Your task to perform on an android device: install app "DuckDuckGo Privacy Browser" Image 0: 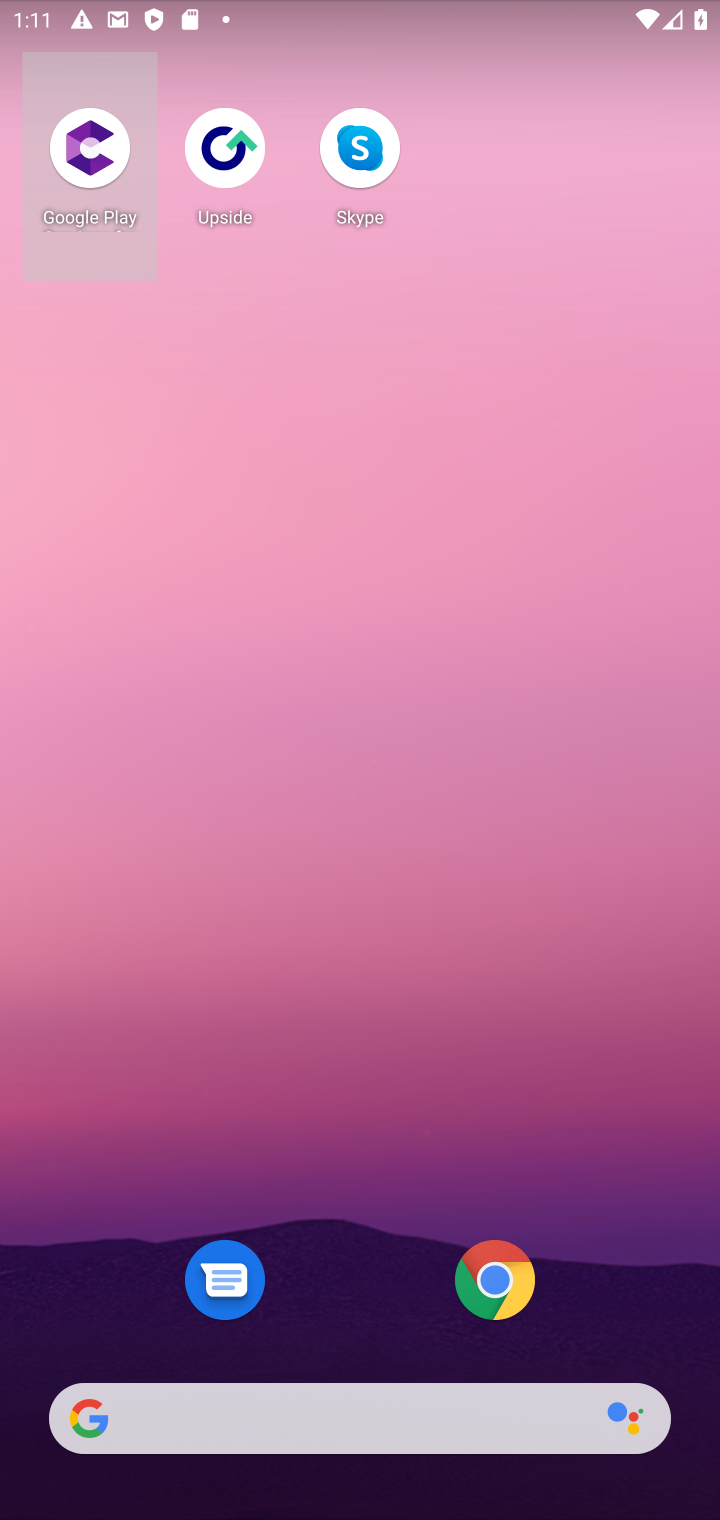
Step 0: drag from (410, 795) to (586, 16)
Your task to perform on an android device: install app "DuckDuckGo Privacy Browser" Image 1: 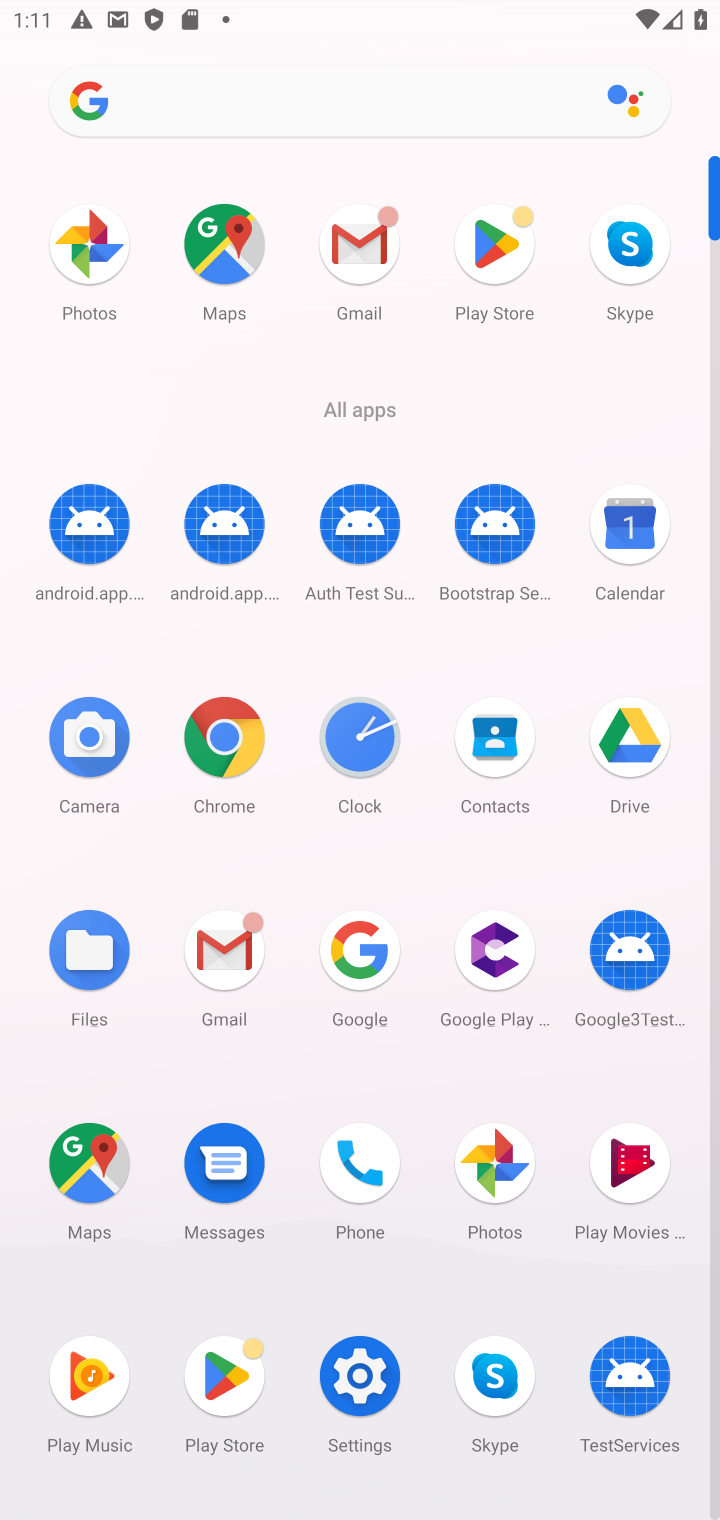
Step 1: click (509, 242)
Your task to perform on an android device: install app "DuckDuckGo Privacy Browser" Image 2: 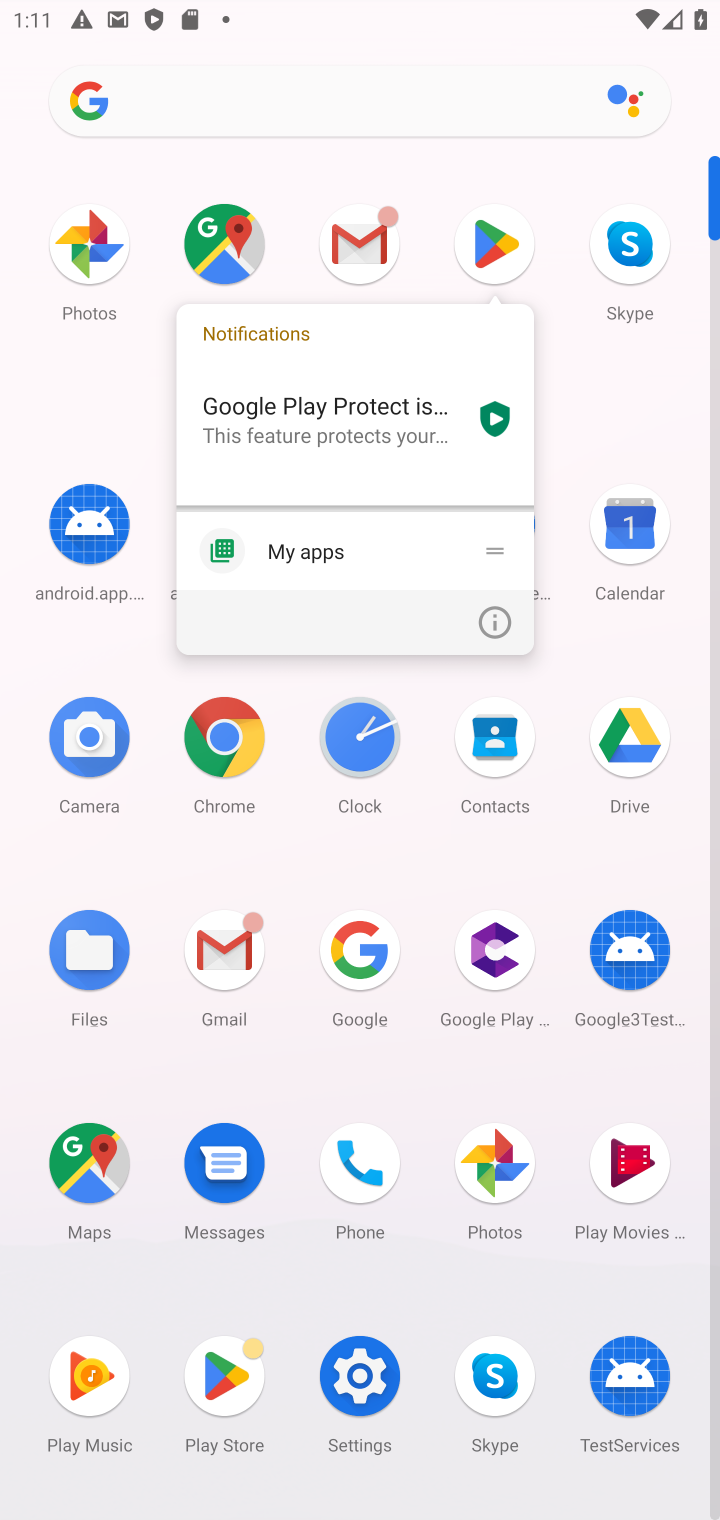
Step 2: click (483, 239)
Your task to perform on an android device: install app "DuckDuckGo Privacy Browser" Image 3: 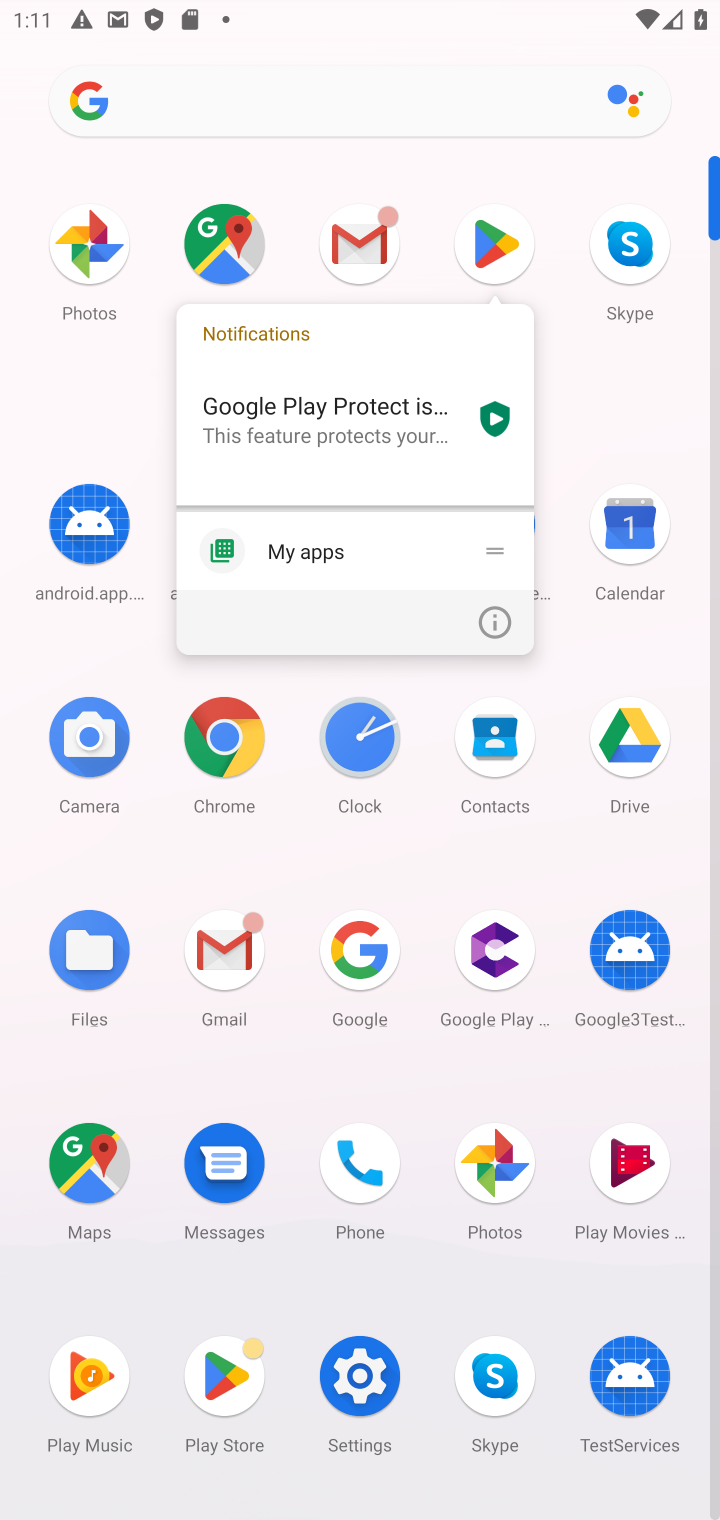
Step 3: click (504, 252)
Your task to perform on an android device: install app "DuckDuckGo Privacy Browser" Image 4: 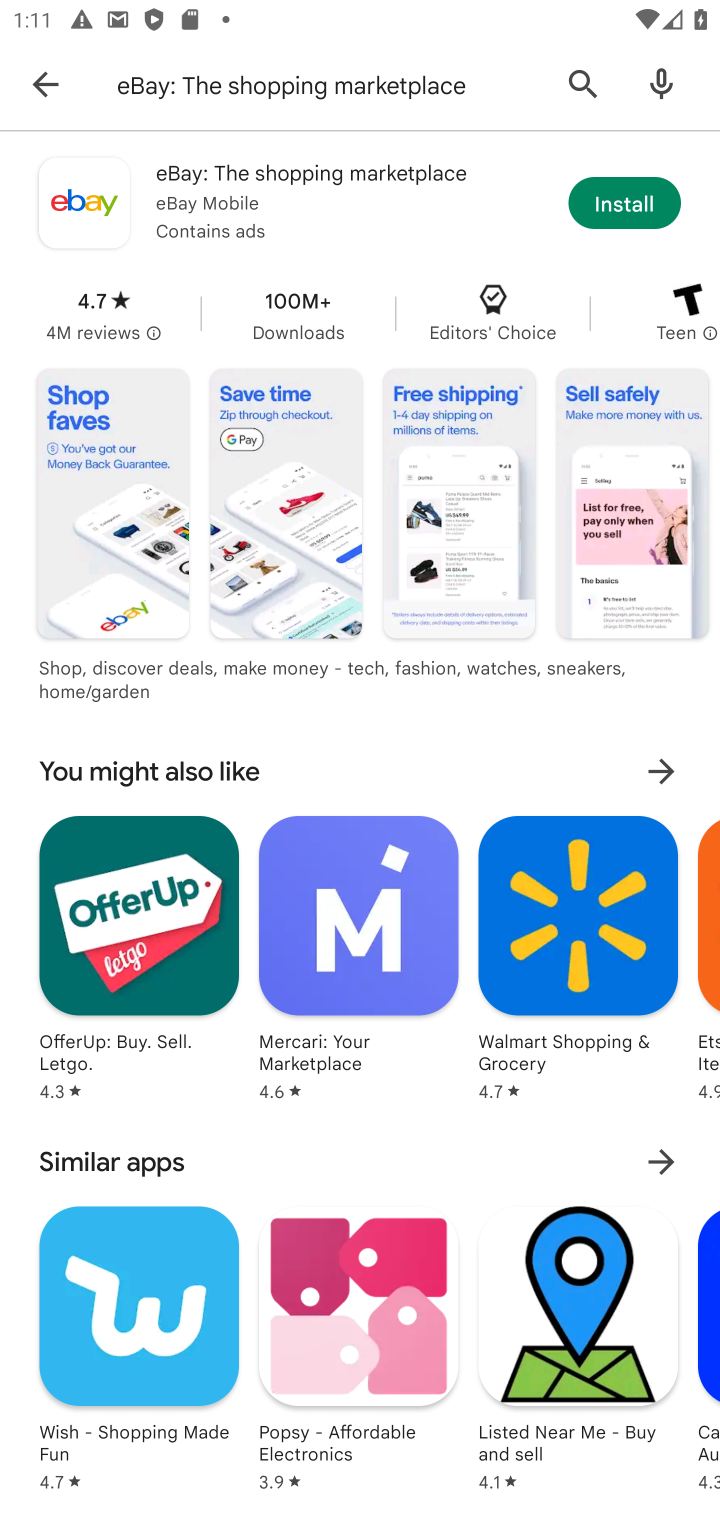
Step 4: click (442, 81)
Your task to perform on an android device: install app "DuckDuckGo Privacy Browser" Image 5: 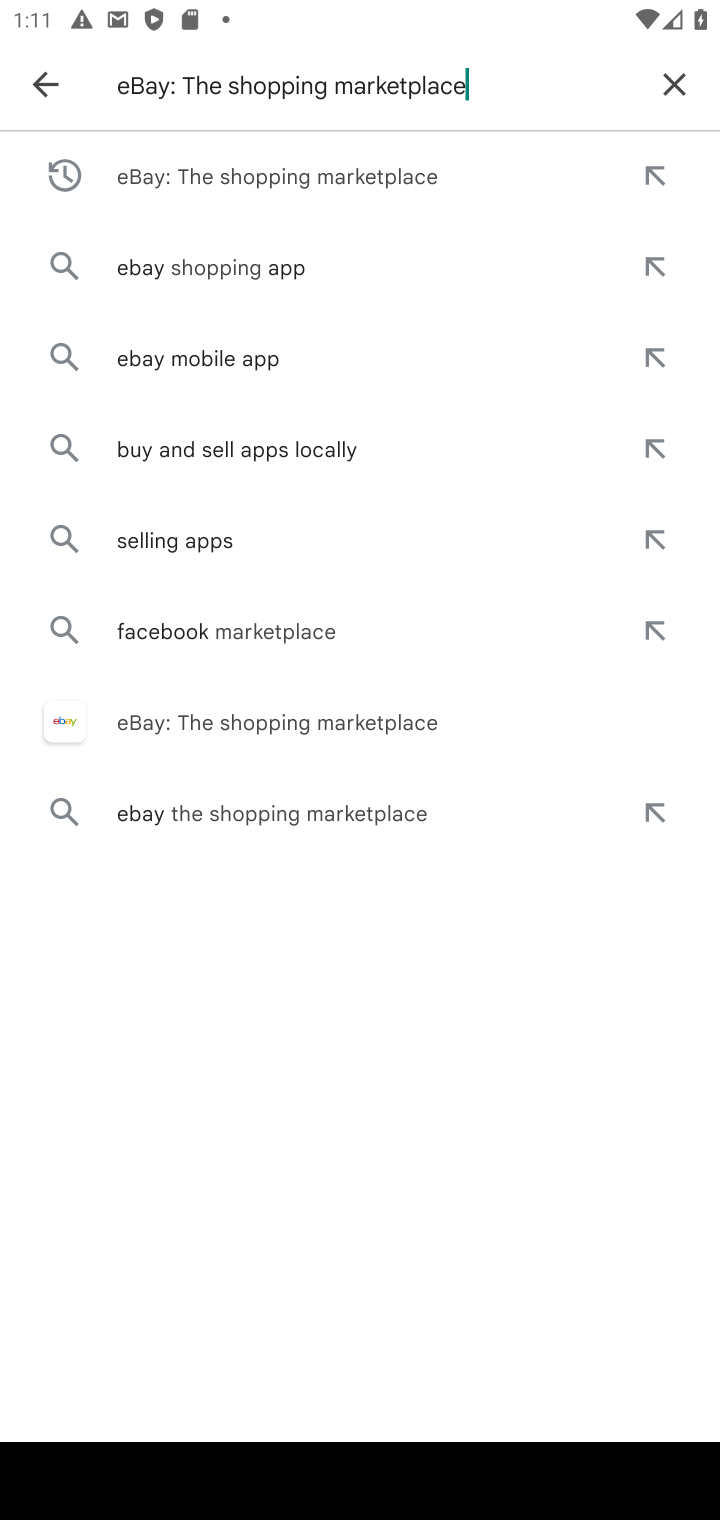
Step 5: click (676, 81)
Your task to perform on an android device: install app "DuckDuckGo Privacy Browser" Image 6: 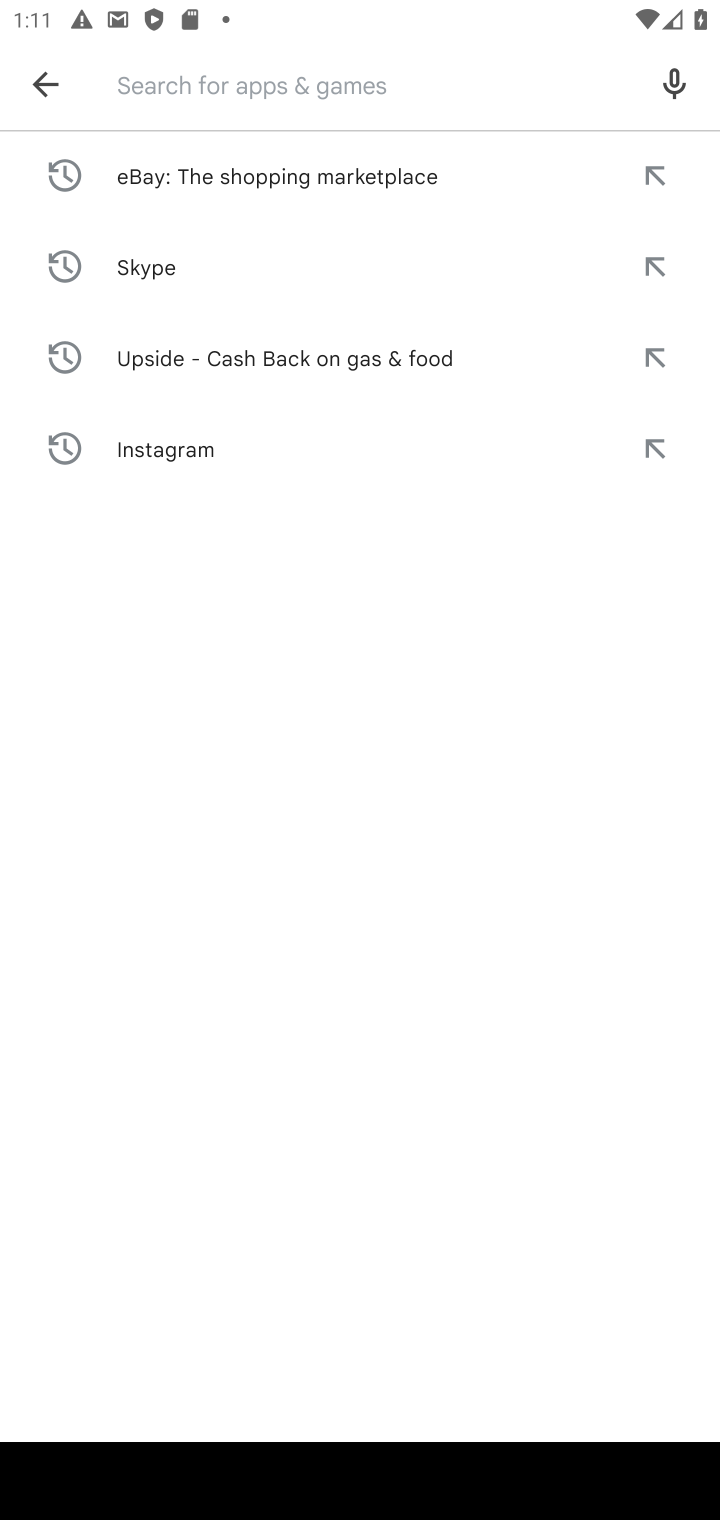
Step 6: type "DuckDuckGo Browser"
Your task to perform on an android device: install app "DuckDuckGo Privacy Browser" Image 7: 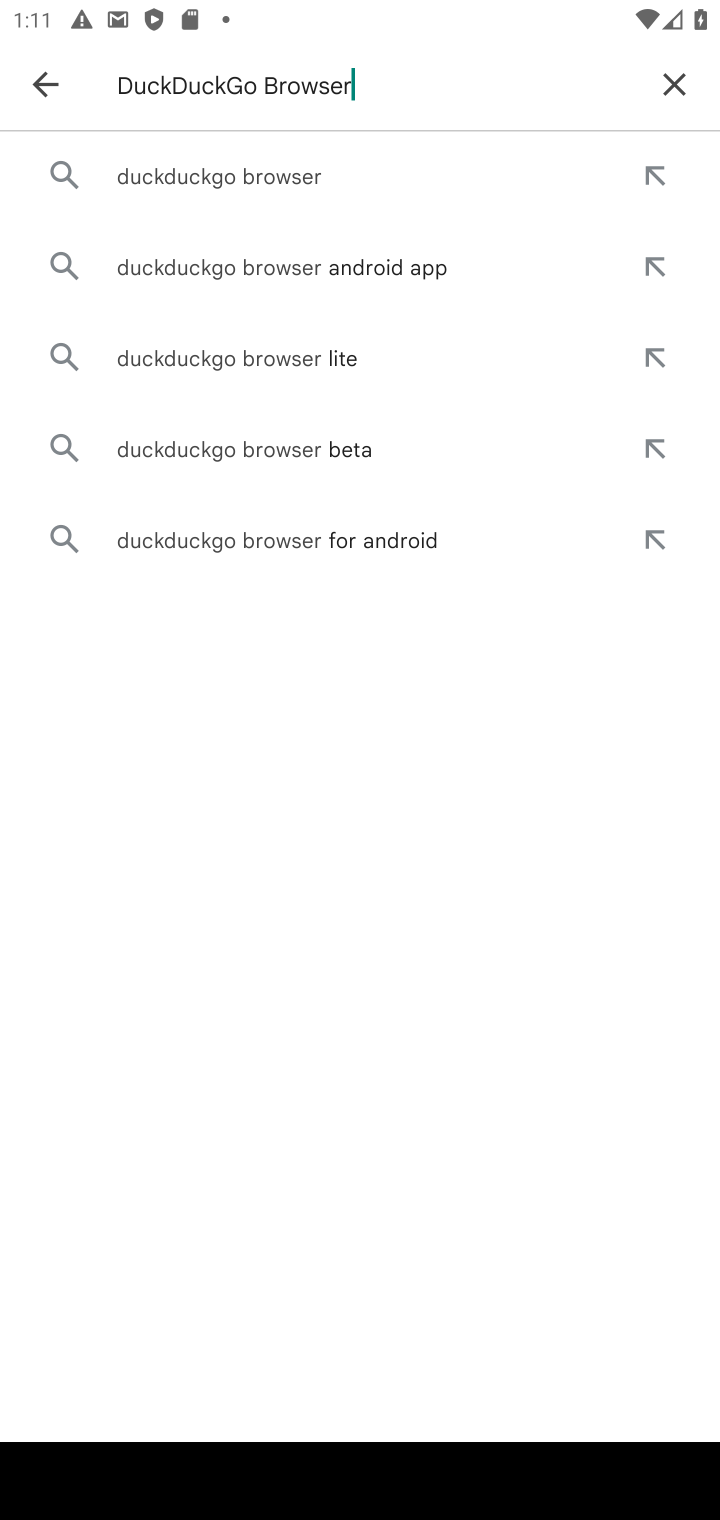
Step 7: press enter
Your task to perform on an android device: install app "DuckDuckGo Privacy Browser" Image 8: 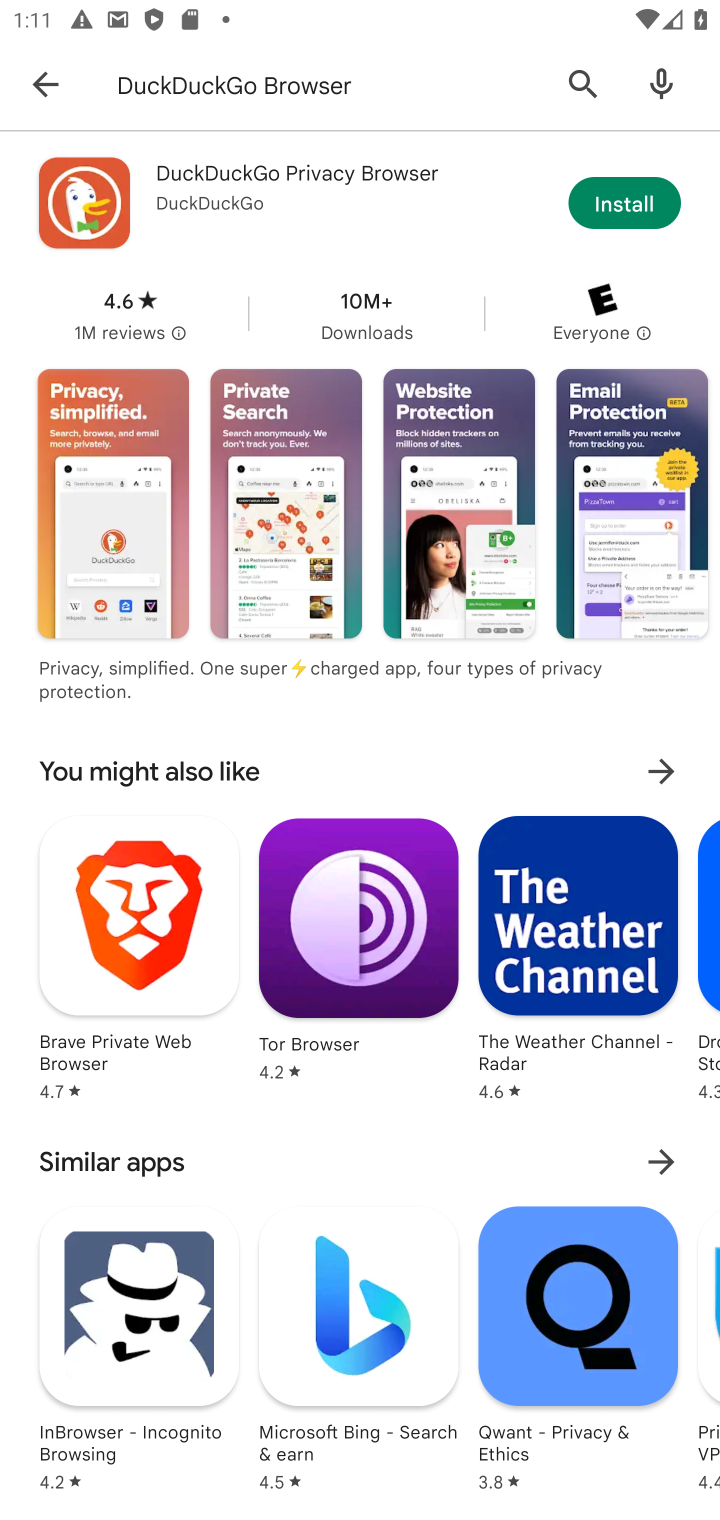
Step 8: click (604, 200)
Your task to perform on an android device: install app "DuckDuckGo Privacy Browser" Image 9: 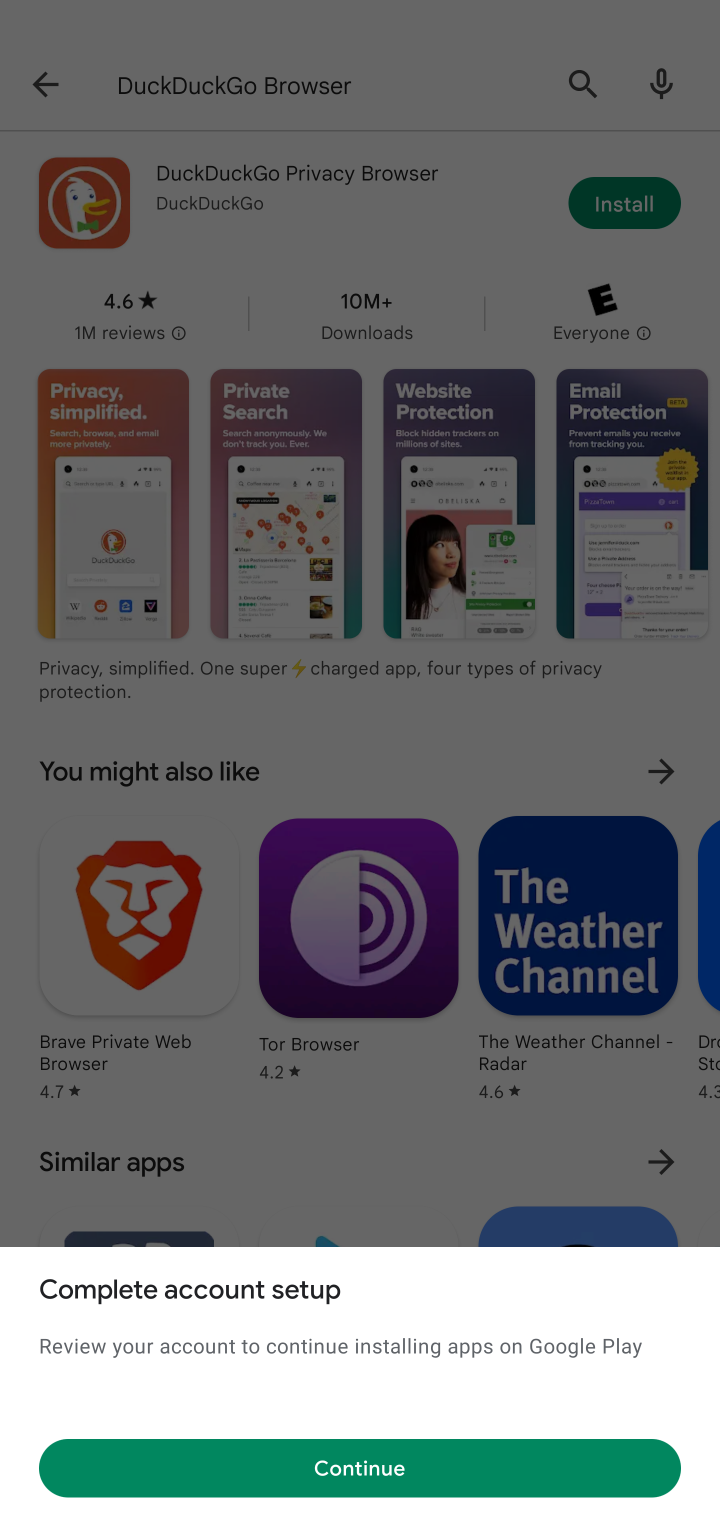
Step 9: click (478, 1467)
Your task to perform on an android device: install app "DuckDuckGo Privacy Browser" Image 10: 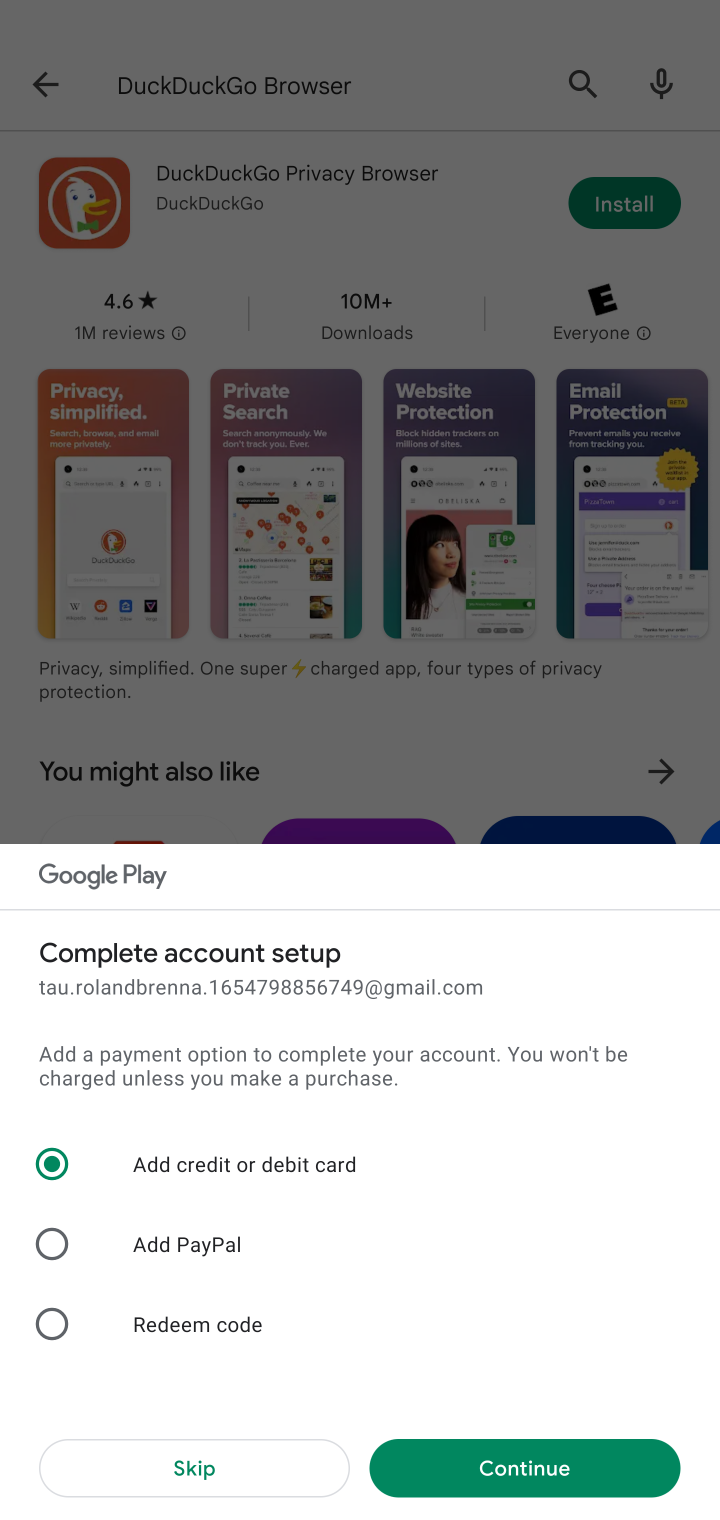
Step 10: click (204, 1456)
Your task to perform on an android device: install app "DuckDuckGo Privacy Browser" Image 11: 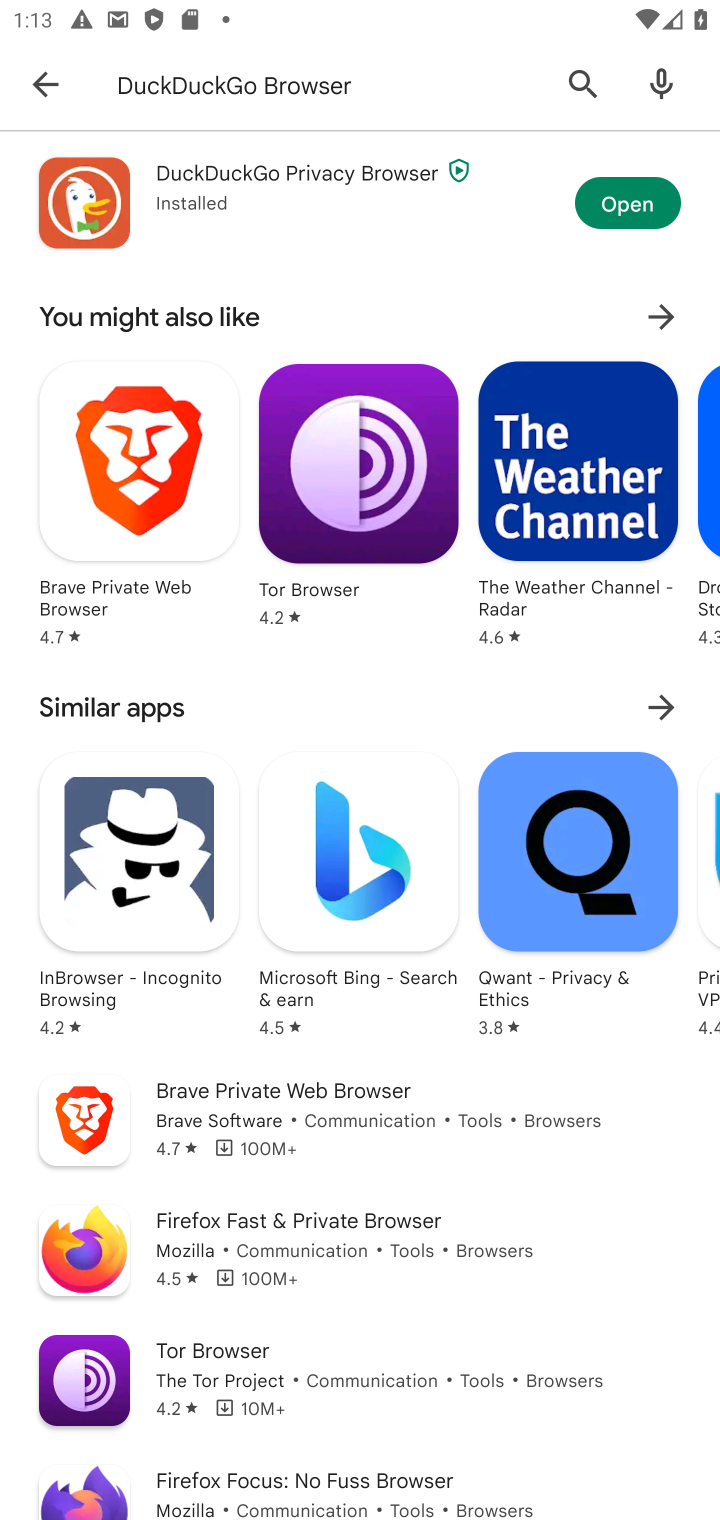
Step 11: task complete